Your task to perform on an android device: Open Google Chrome Image 0: 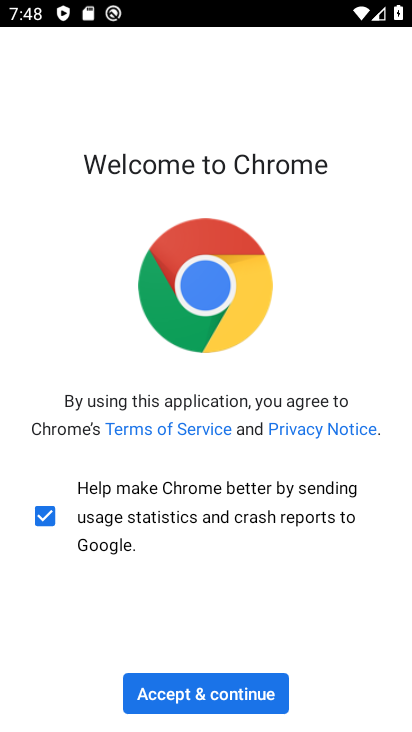
Step 0: click (271, 705)
Your task to perform on an android device: Open Google Chrome Image 1: 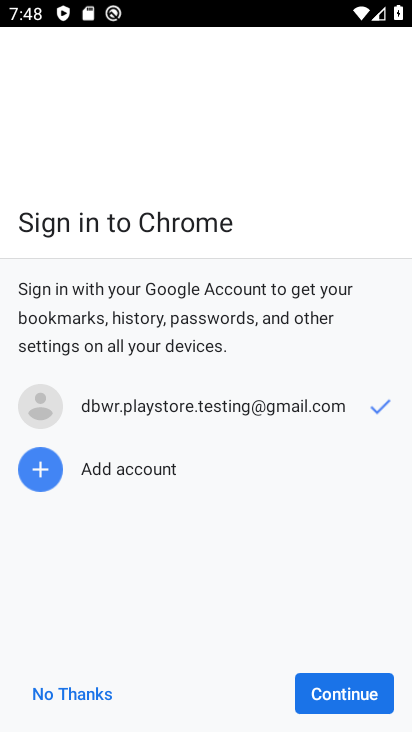
Step 1: click (332, 696)
Your task to perform on an android device: Open Google Chrome Image 2: 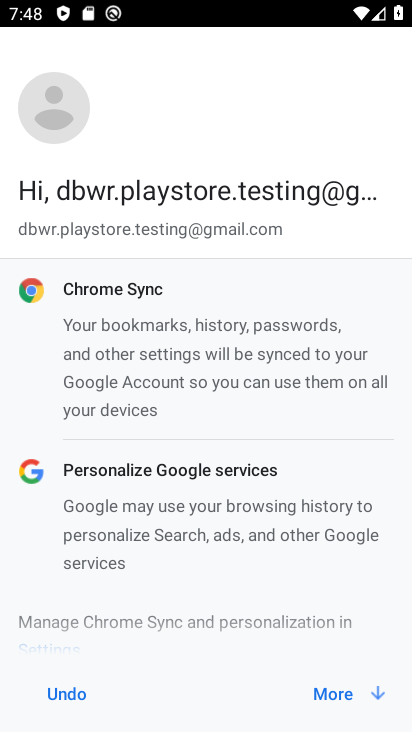
Step 2: click (338, 690)
Your task to perform on an android device: Open Google Chrome Image 3: 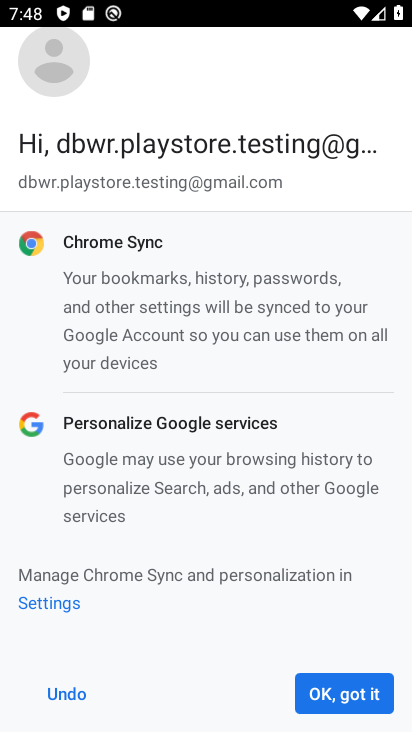
Step 3: click (338, 690)
Your task to perform on an android device: Open Google Chrome Image 4: 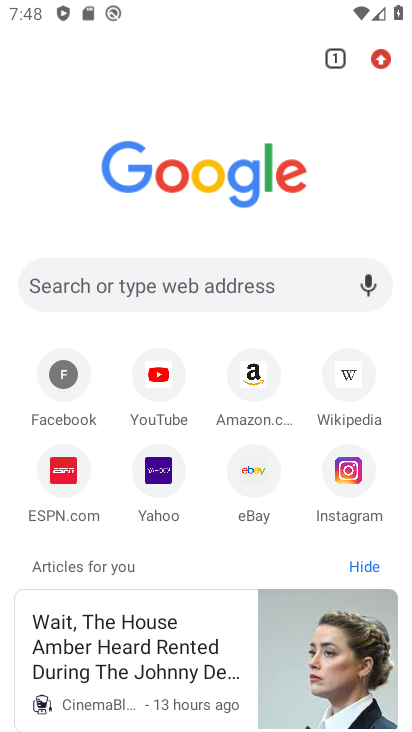
Step 4: task complete